Your task to perform on an android device: Find coffee shops on Maps Image 0: 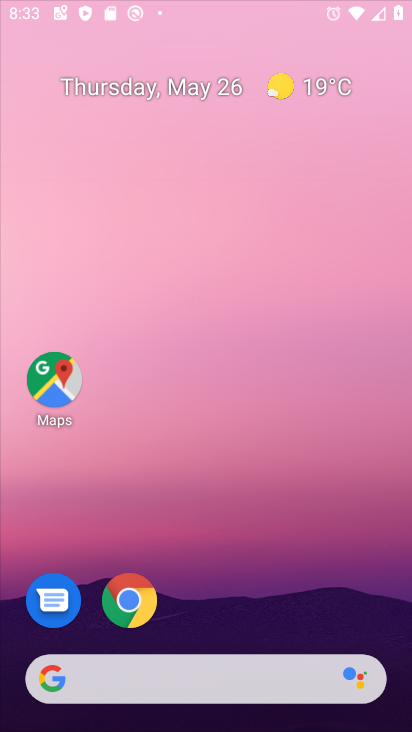
Step 0: press home button
Your task to perform on an android device: Find coffee shops on Maps Image 1: 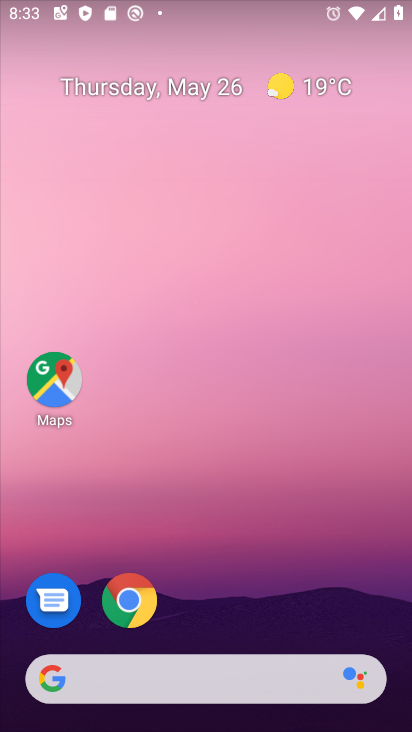
Step 1: click (42, 391)
Your task to perform on an android device: Find coffee shops on Maps Image 2: 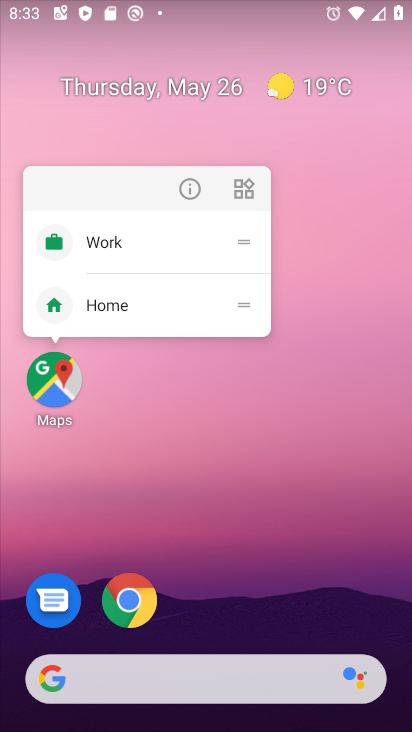
Step 2: drag from (272, 626) to (282, 20)
Your task to perform on an android device: Find coffee shops on Maps Image 3: 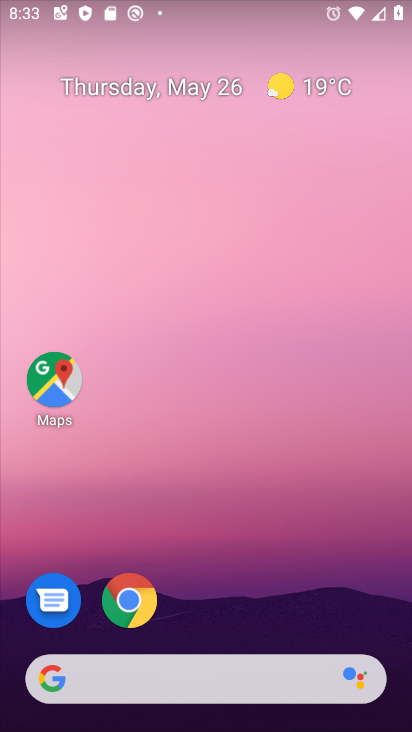
Step 3: drag from (301, 629) to (320, 140)
Your task to perform on an android device: Find coffee shops on Maps Image 4: 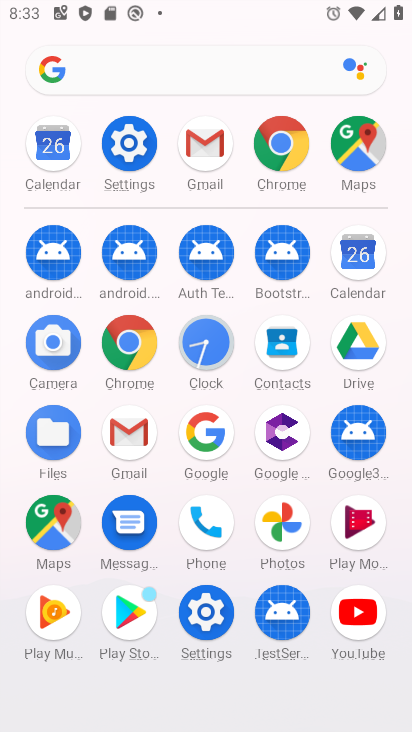
Step 4: click (354, 154)
Your task to perform on an android device: Find coffee shops on Maps Image 5: 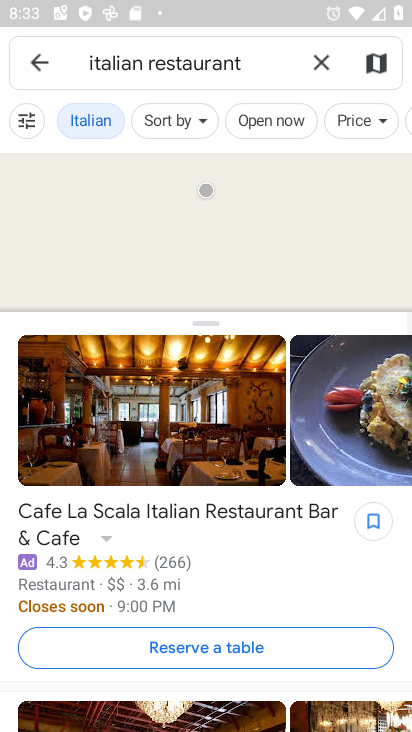
Step 5: click (318, 64)
Your task to perform on an android device: Find coffee shops on Maps Image 6: 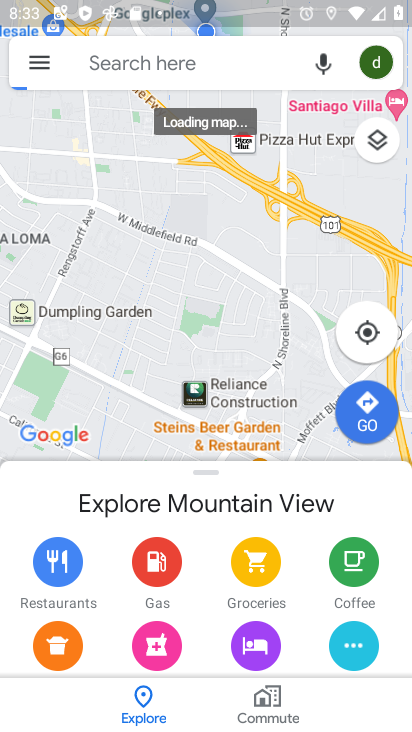
Step 6: click (168, 65)
Your task to perform on an android device: Find coffee shops on Maps Image 7: 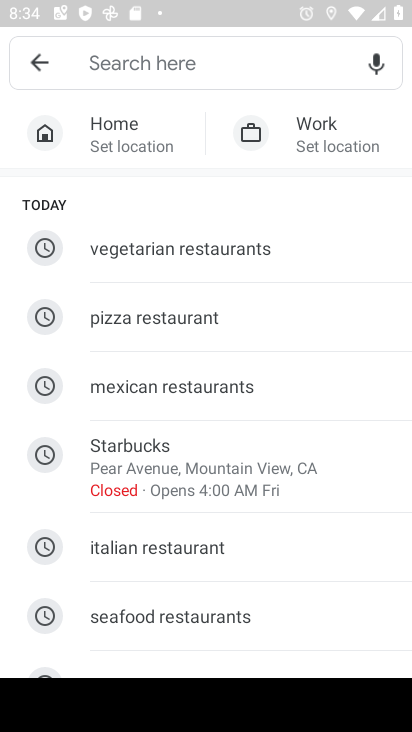
Step 7: type "coffee shops"
Your task to perform on an android device: Find coffee shops on Maps Image 8: 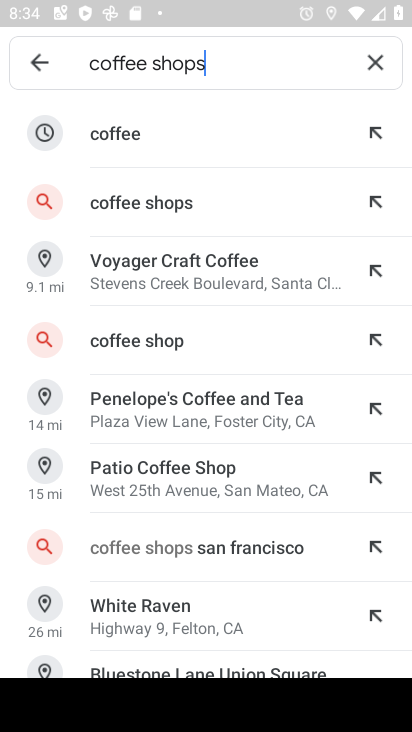
Step 8: click (159, 204)
Your task to perform on an android device: Find coffee shops on Maps Image 9: 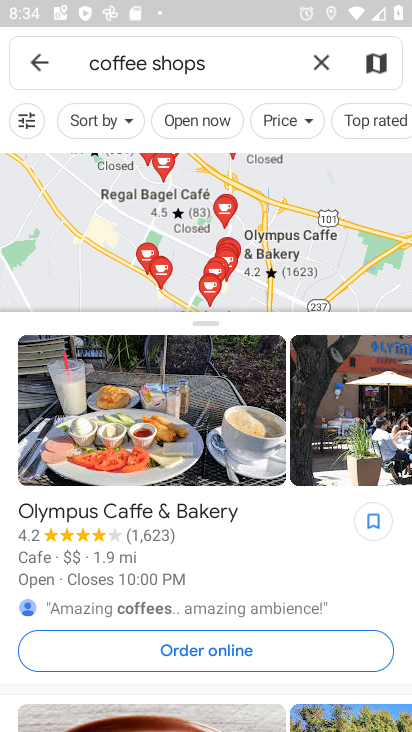
Step 9: task complete